Your task to perform on an android device: Add bose soundlink to the cart on amazon.com Image 0: 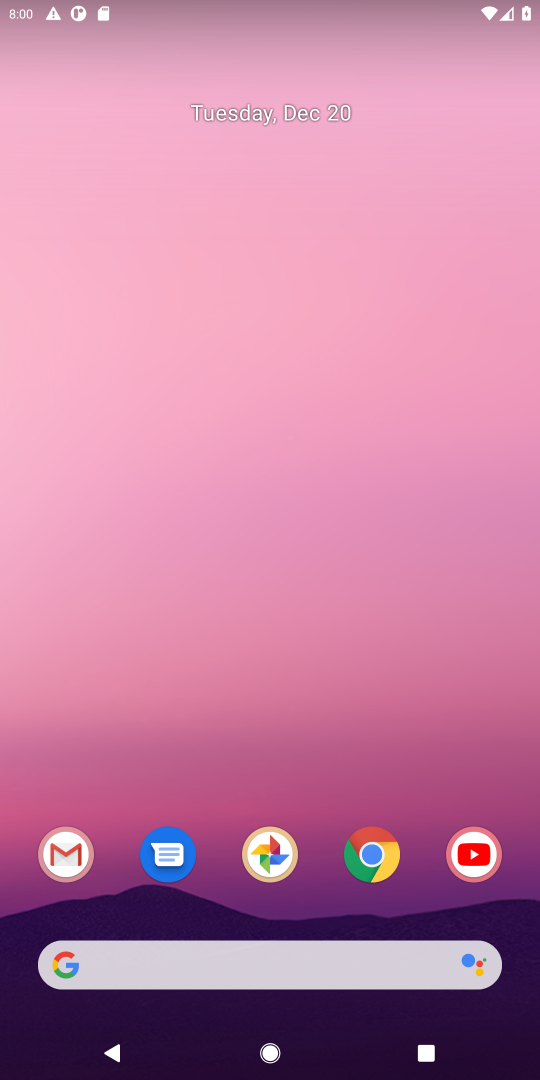
Step 0: click (375, 850)
Your task to perform on an android device: Add bose soundlink to the cart on amazon.com Image 1: 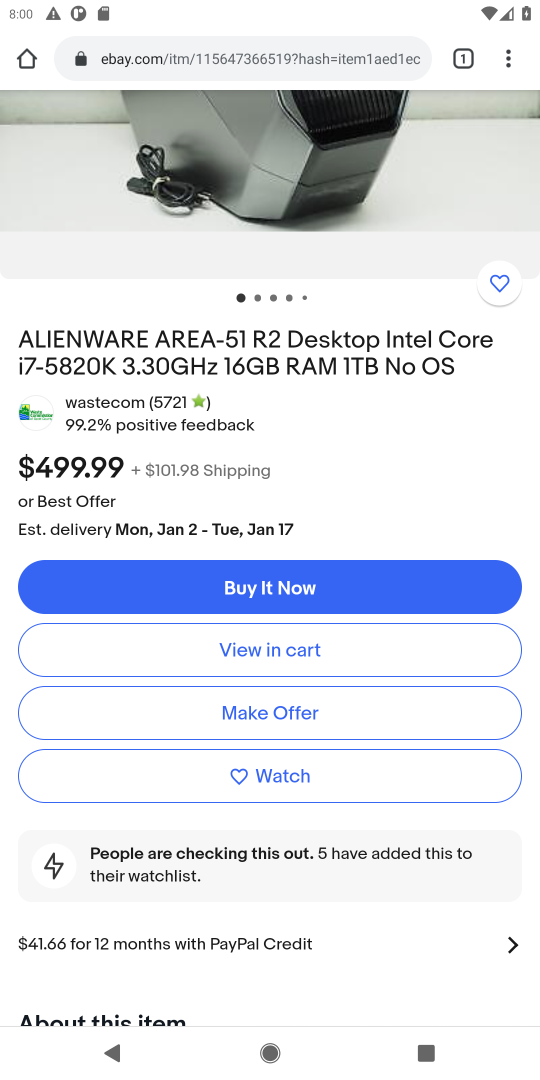
Step 1: click (191, 66)
Your task to perform on an android device: Add bose soundlink to the cart on amazon.com Image 2: 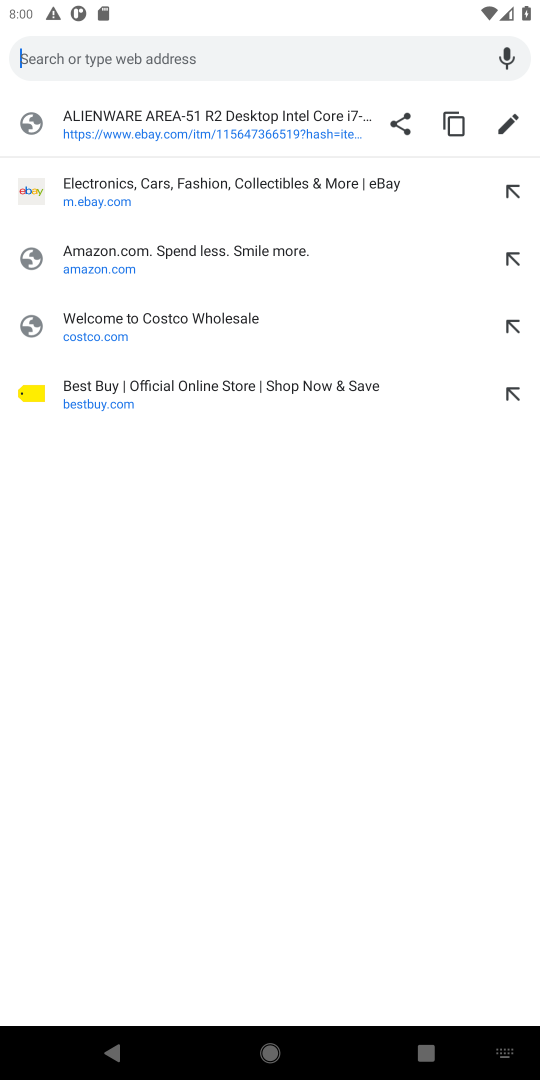
Step 2: click (92, 262)
Your task to perform on an android device: Add bose soundlink to the cart on amazon.com Image 3: 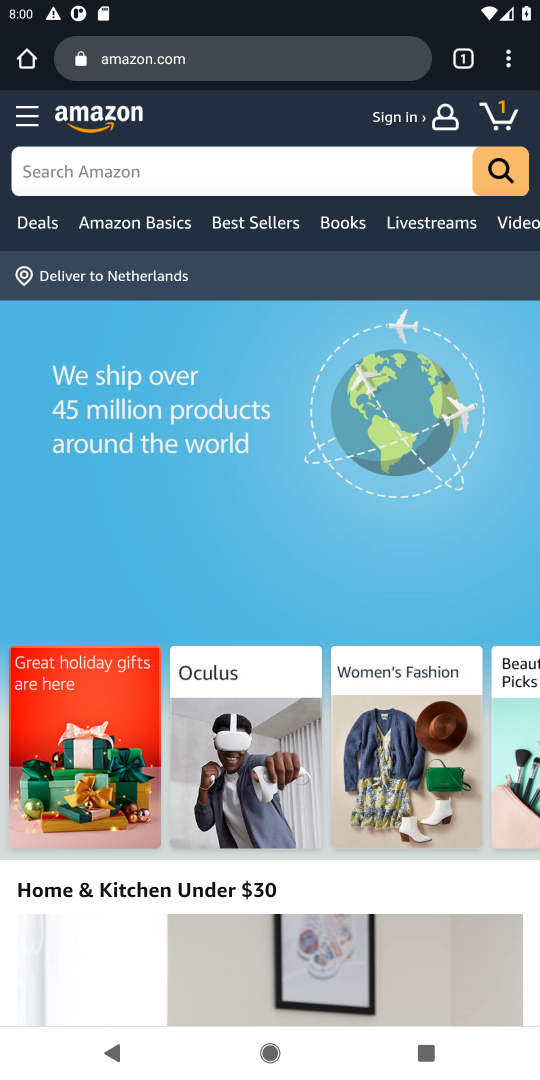
Step 3: click (124, 176)
Your task to perform on an android device: Add bose soundlink to the cart on amazon.com Image 4: 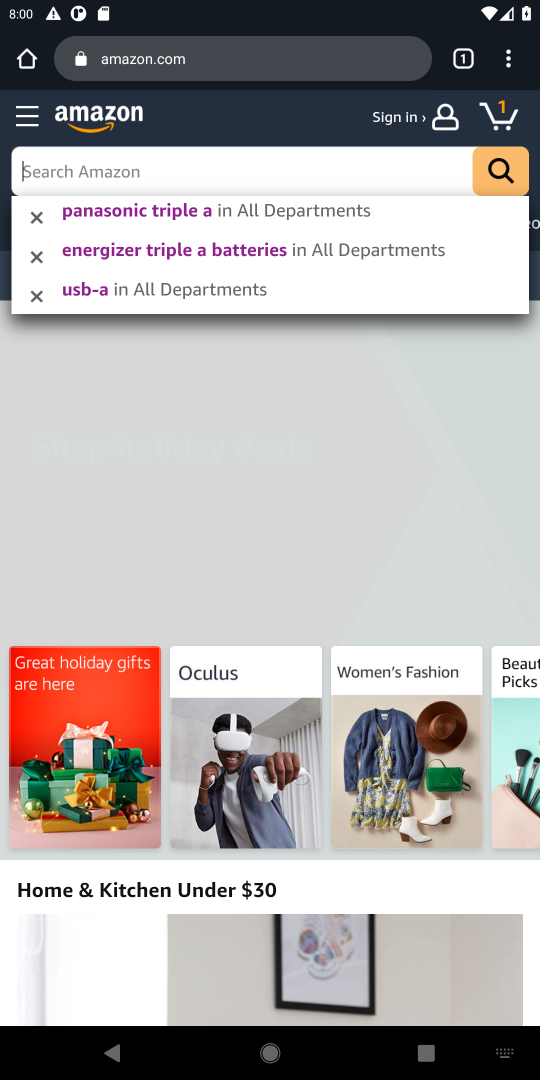
Step 4: type "bose soundlink"
Your task to perform on an android device: Add bose soundlink to the cart on amazon.com Image 5: 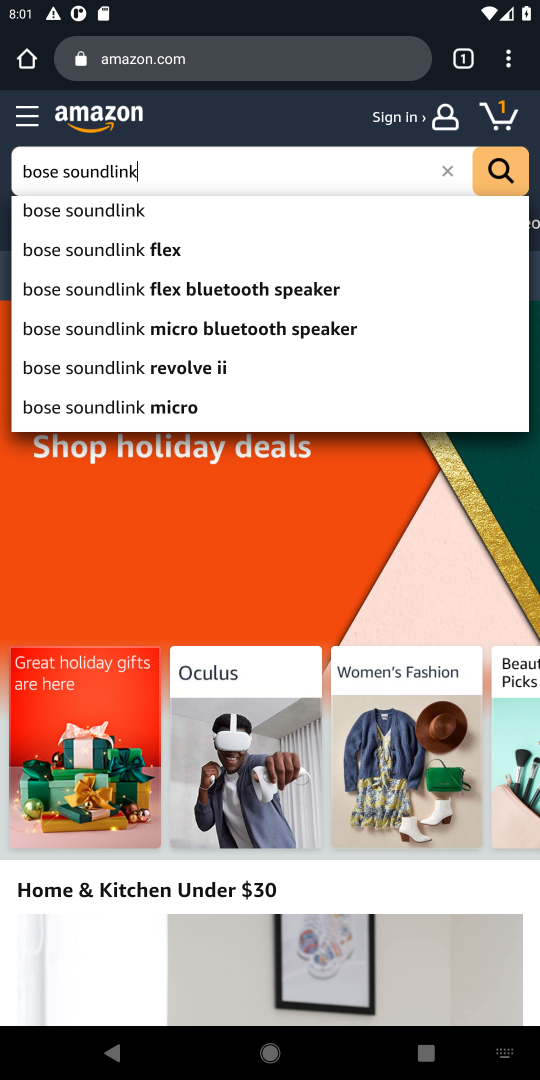
Step 5: click (74, 213)
Your task to perform on an android device: Add bose soundlink to the cart on amazon.com Image 6: 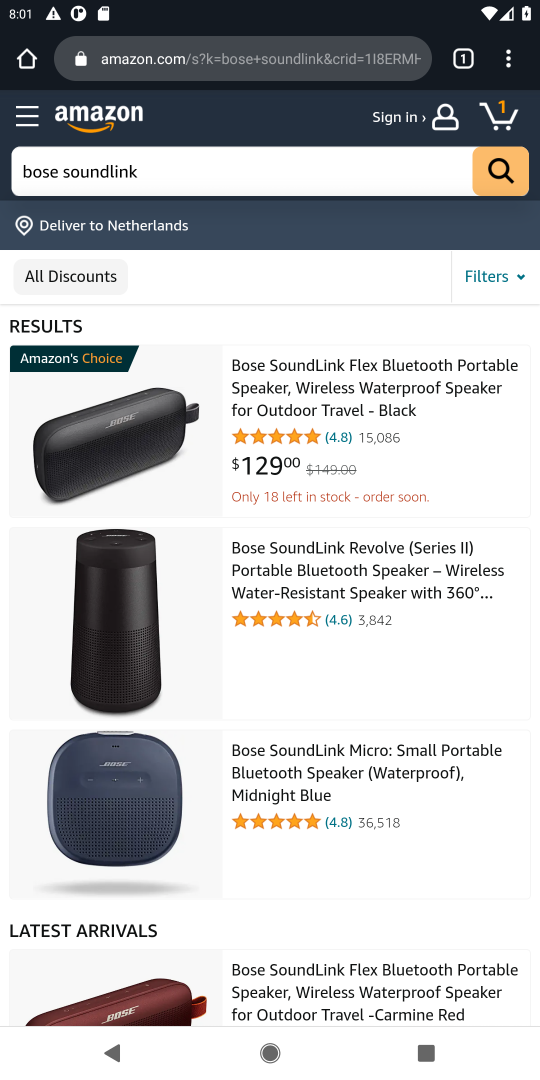
Step 6: drag from (327, 800) to (256, 499)
Your task to perform on an android device: Add bose soundlink to the cart on amazon.com Image 7: 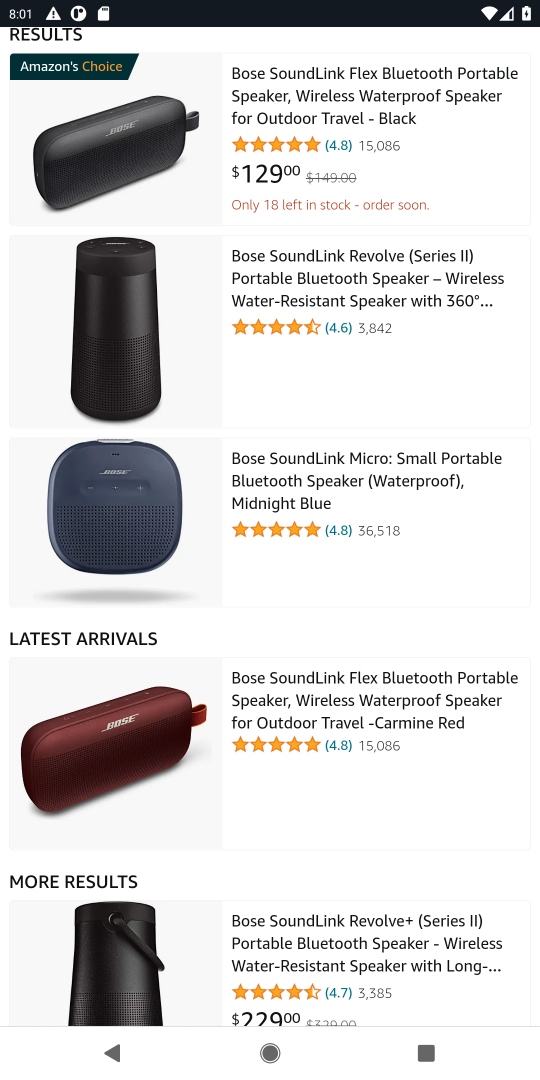
Step 7: drag from (250, 769) to (220, 492)
Your task to perform on an android device: Add bose soundlink to the cart on amazon.com Image 8: 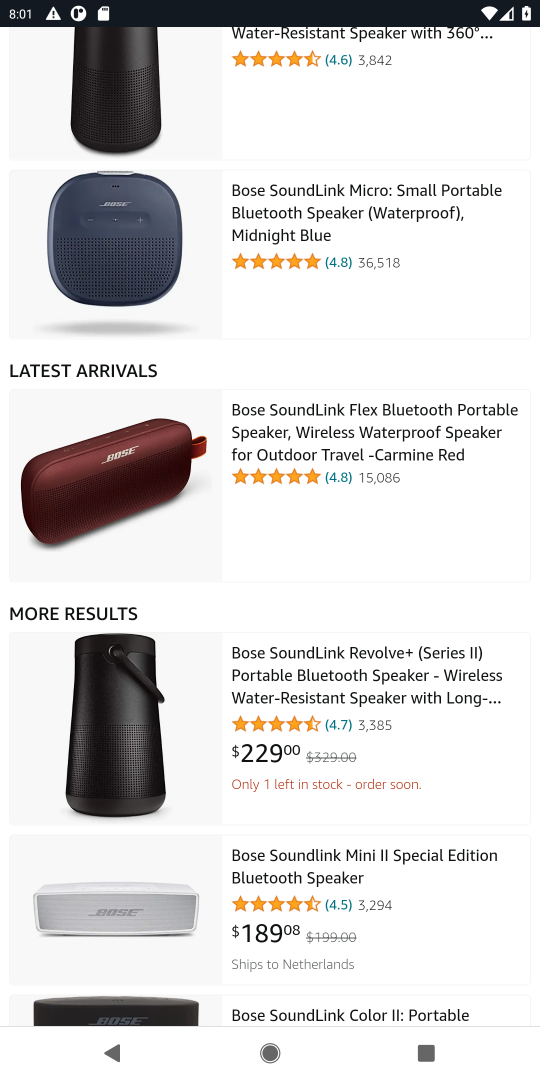
Step 8: drag from (267, 781) to (238, 555)
Your task to perform on an android device: Add bose soundlink to the cart on amazon.com Image 9: 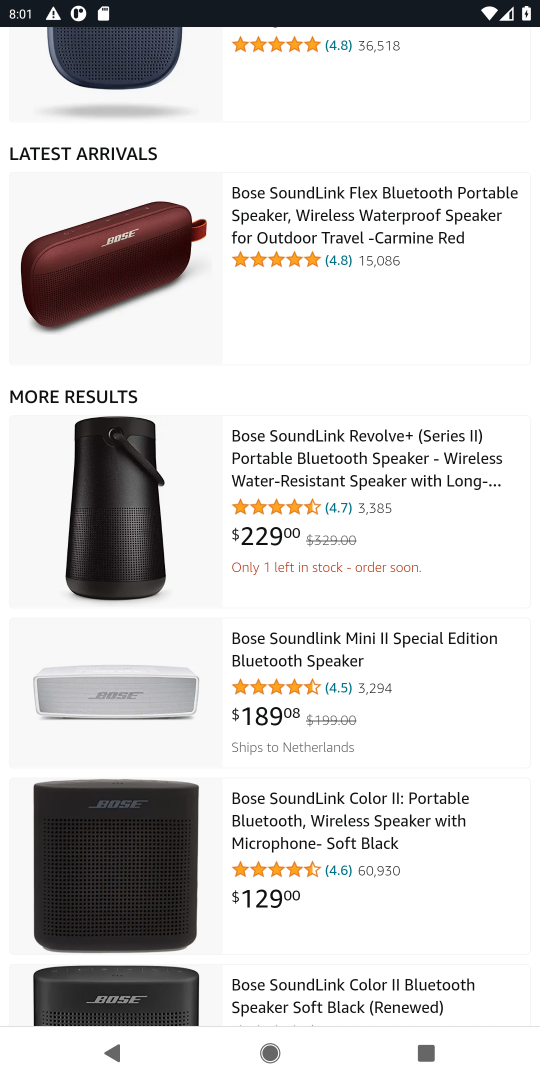
Step 9: click (268, 659)
Your task to perform on an android device: Add bose soundlink to the cart on amazon.com Image 10: 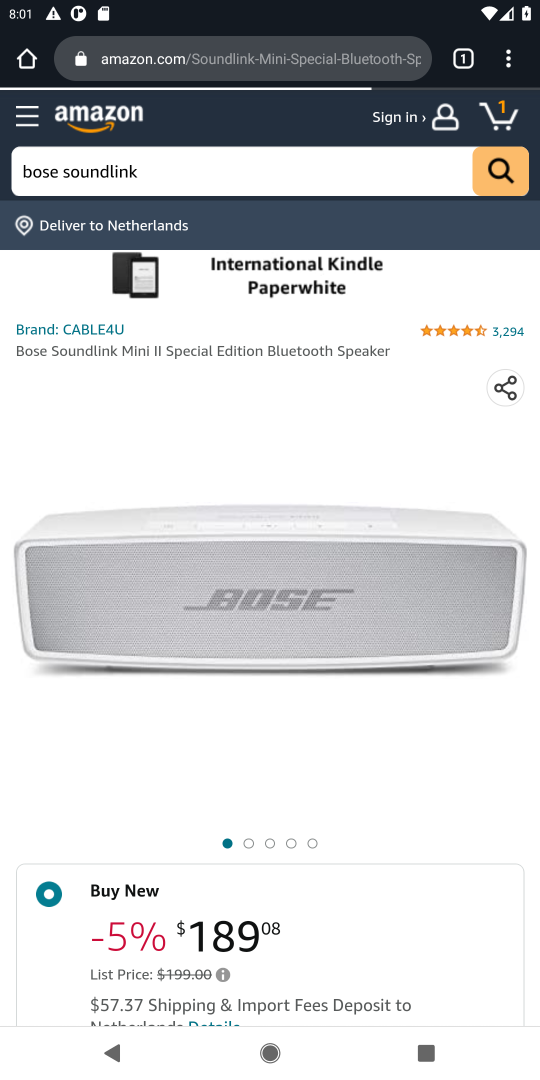
Step 10: drag from (279, 741) to (245, 421)
Your task to perform on an android device: Add bose soundlink to the cart on amazon.com Image 11: 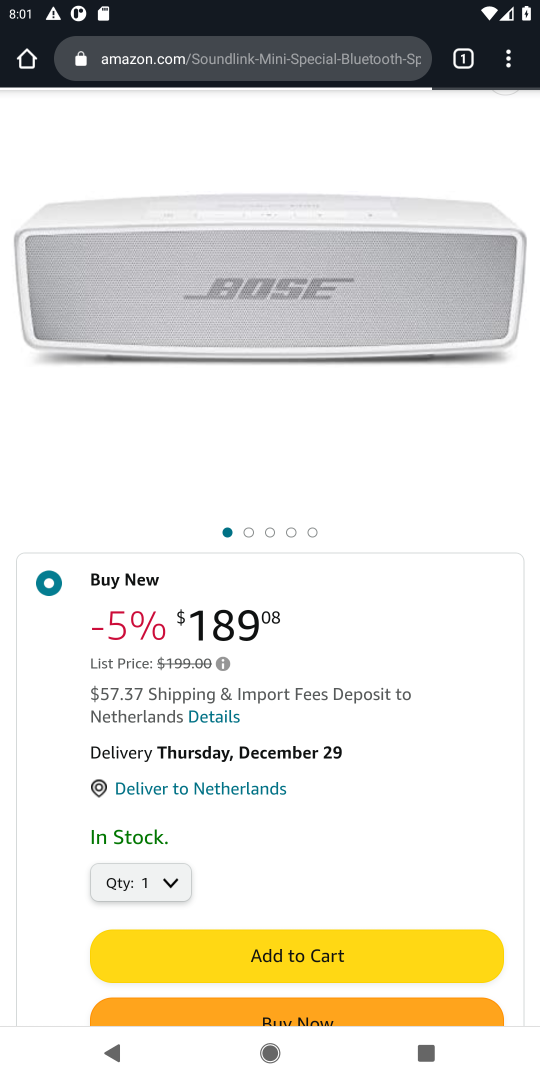
Step 11: click (265, 953)
Your task to perform on an android device: Add bose soundlink to the cart on amazon.com Image 12: 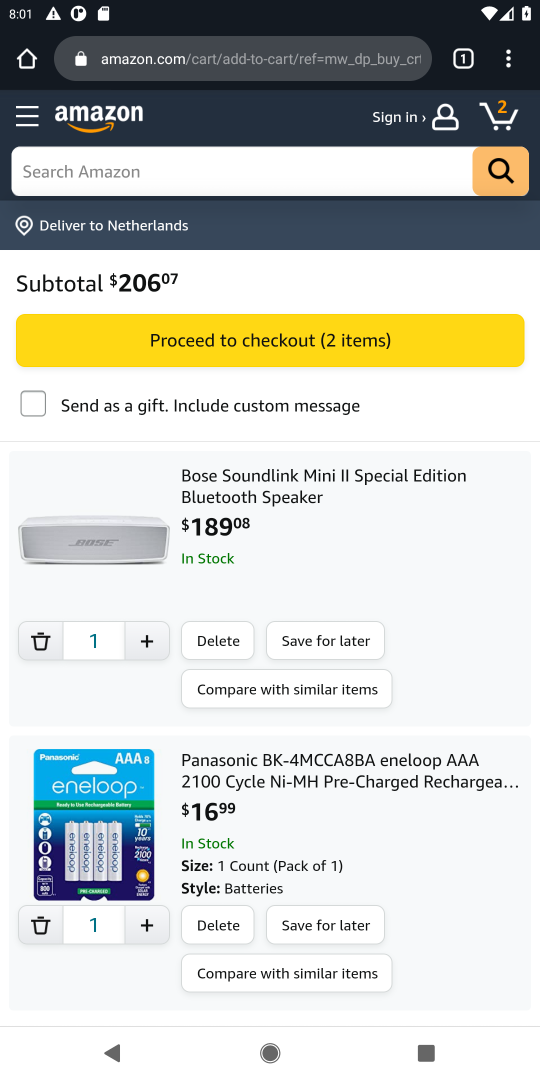
Step 12: task complete